Your task to perform on an android device: Check the news Image 0: 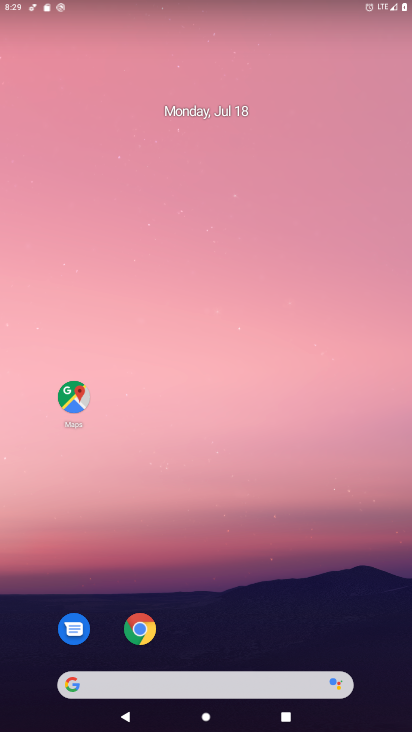
Step 0: click (222, 684)
Your task to perform on an android device: Check the news Image 1: 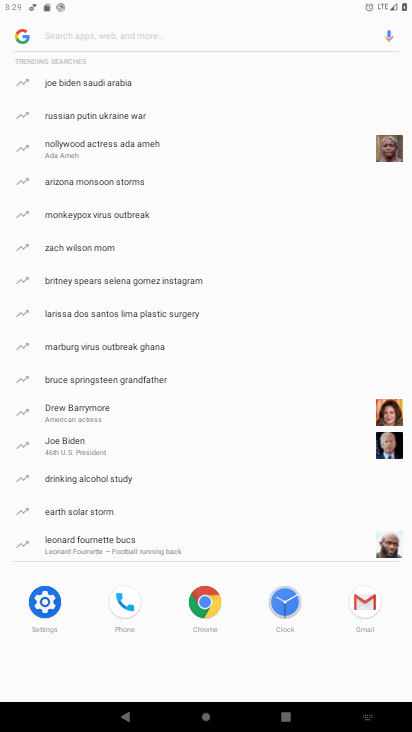
Step 1: type "news"
Your task to perform on an android device: Check the news Image 2: 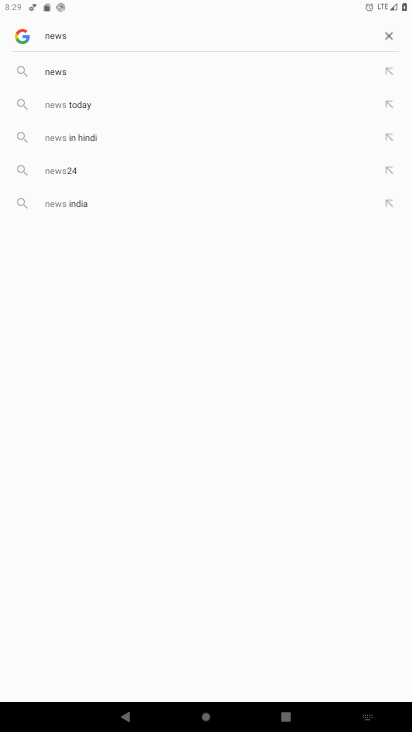
Step 2: click (71, 78)
Your task to perform on an android device: Check the news Image 3: 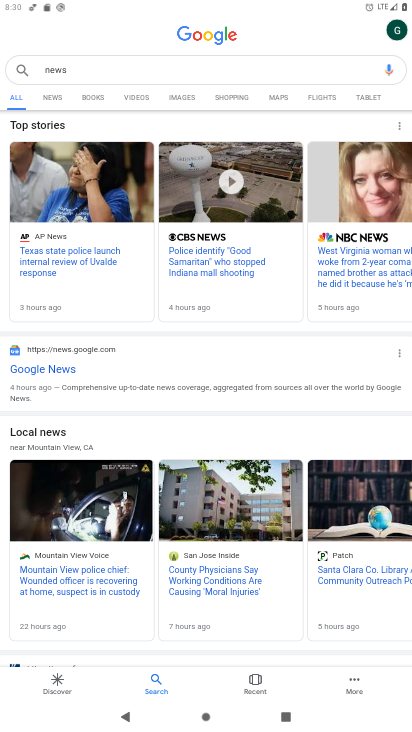
Step 3: task complete